Your task to perform on an android device: turn on the 12-hour format for clock Image 0: 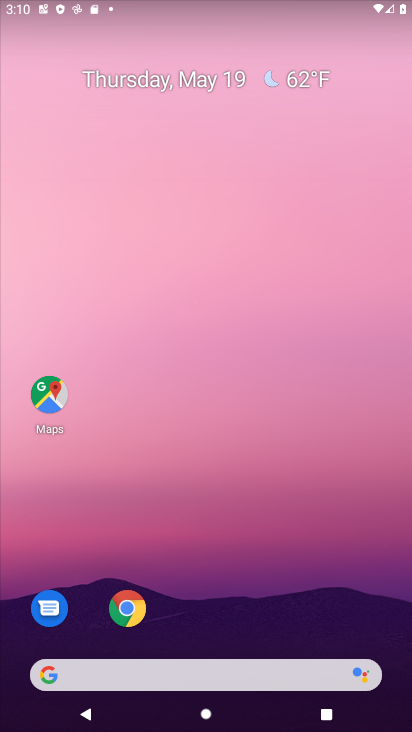
Step 0: drag from (287, 616) to (236, 295)
Your task to perform on an android device: turn on the 12-hour format for clock Image 1: 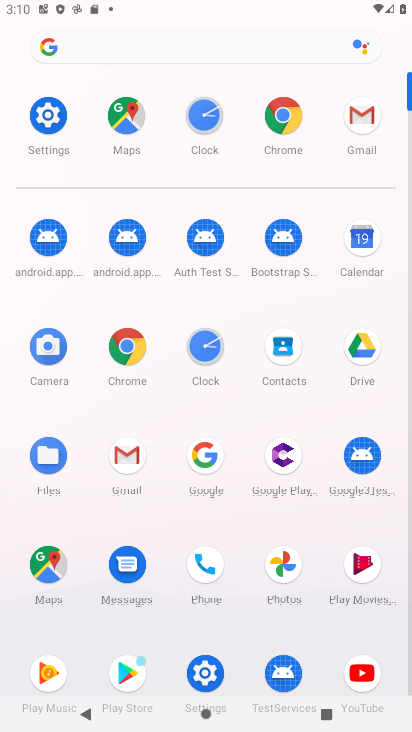
Step 1: click (208, 149)
Your task to perform on an android device: turn on the 12-hour format for clock Image 2: 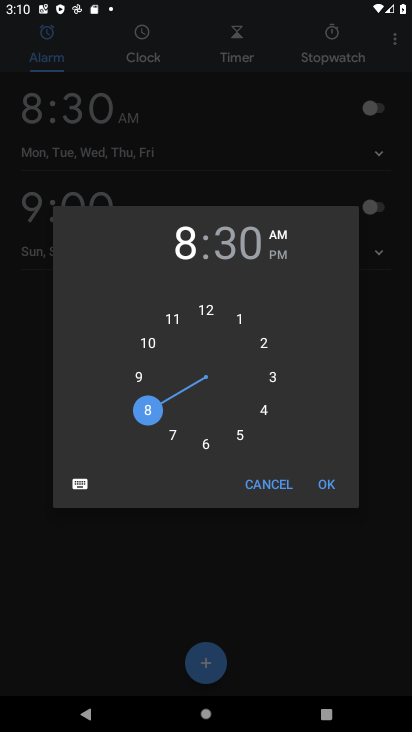
Step 2: click (326, 471)
Your task to perform on an android device: turn on the 12-hour format for clock Image 3: 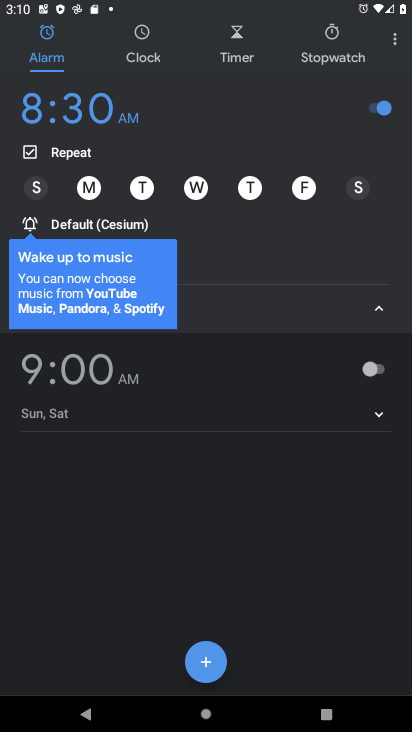
Step 3: click (397, 43)
Your task to perform on an android device: turn on the 12-hour format for clock Image 4: 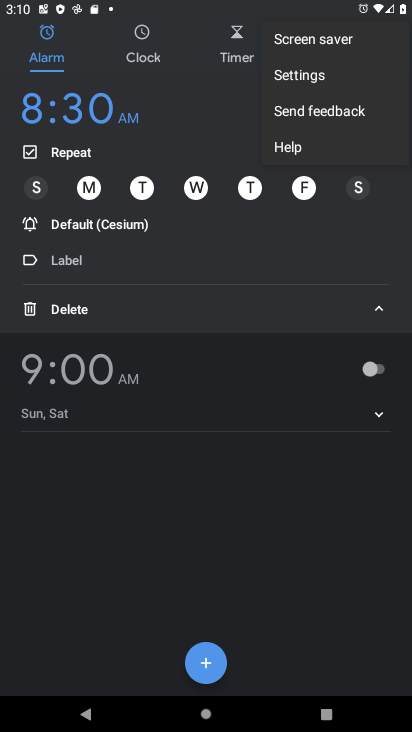
Step 4: click (322, 79)
Your task to perform on an android device: turn on the 12-hour format for clock Image 5: 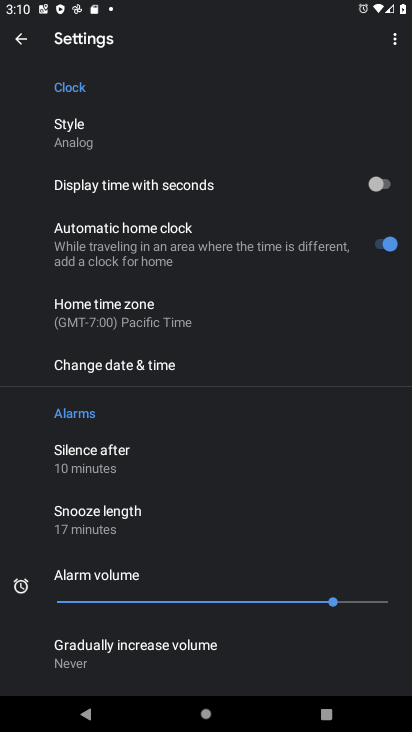
Step 5: click (203, 356)
Your task to perform on an android device: turn on the 12-hour format for clock Image 6: 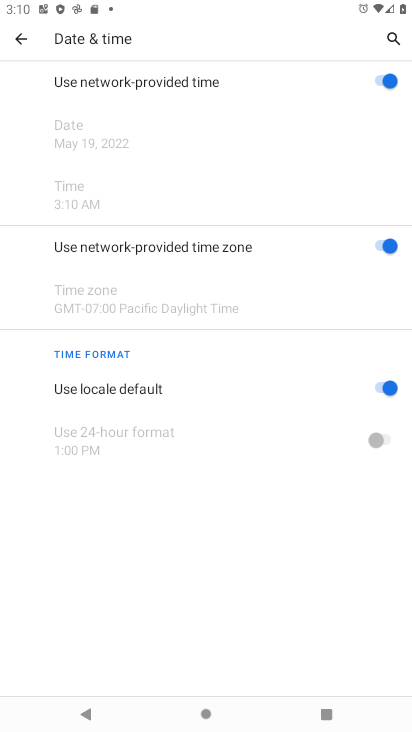
Step 6: task complete